Your task to perform on an android device: turn smart compose on in the gmail app Image 0: 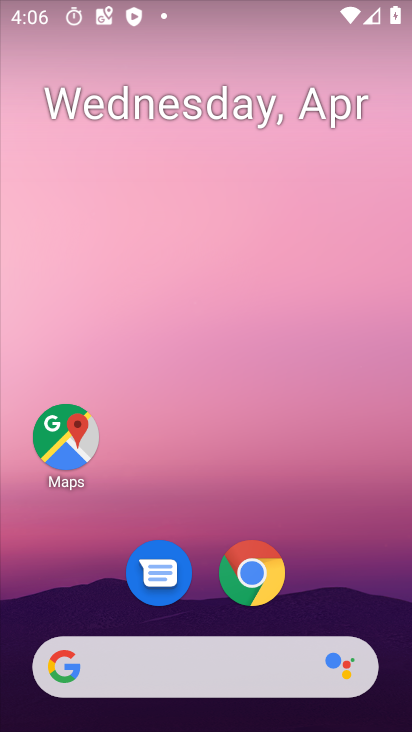
Step 0: drag from (363, 433) to (369, 75)
Your task to perform on an android device: turn smart compose on in the gmail app Image 1: 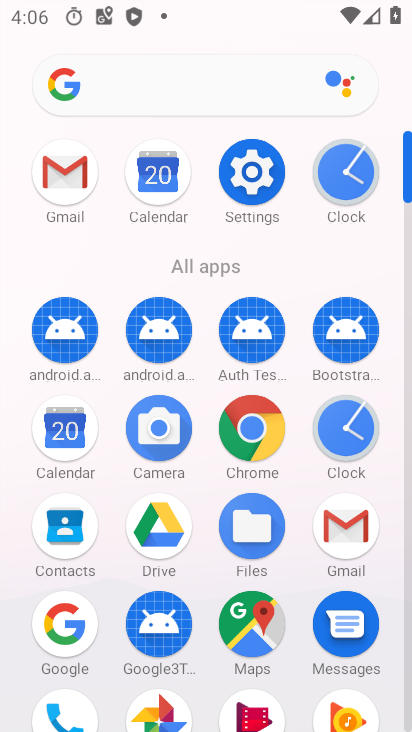
Step 1: click (358, 534)
Your task to perform on an android device: turn smart compose on in the gmail app Image 2: 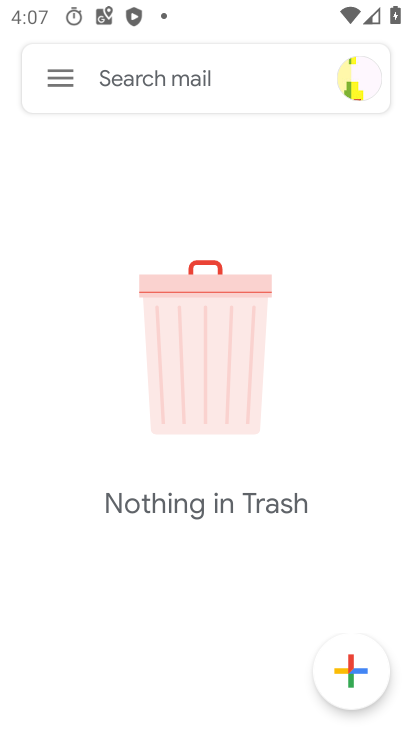
Step 2: click (50, 85)
Your task to perform on an android device: turn smart compose on in the gmail app Image 3: 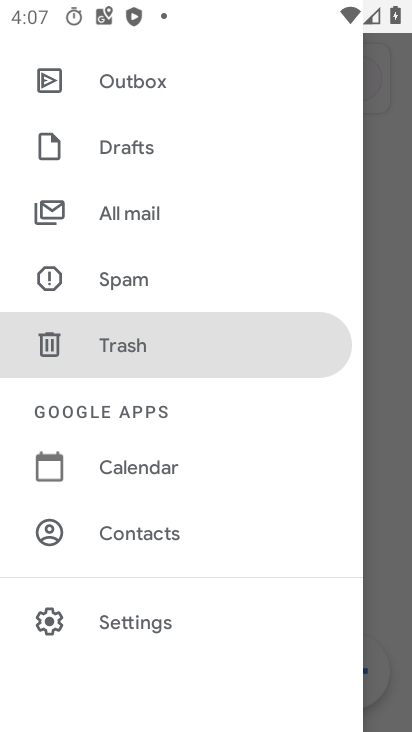
Step 3: drag from (270, 649) to (319, 184)
Your task to perform on an android device: turn smart compose on in the gmail app Image 4: 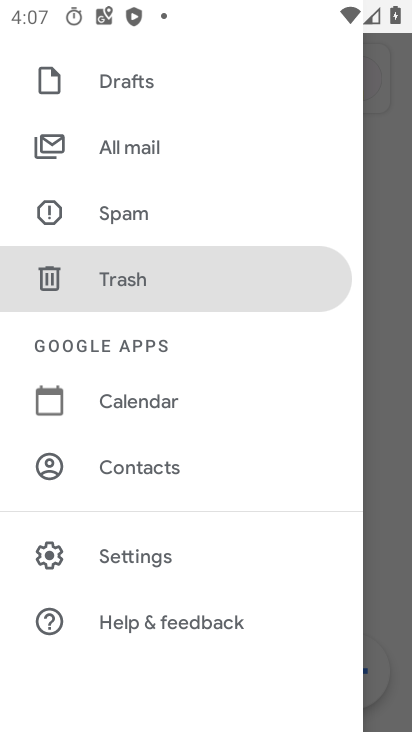
Step 4: click (139, 558)
Your task to perform on an android device: turn smart compose on in the gmail app Image 5: 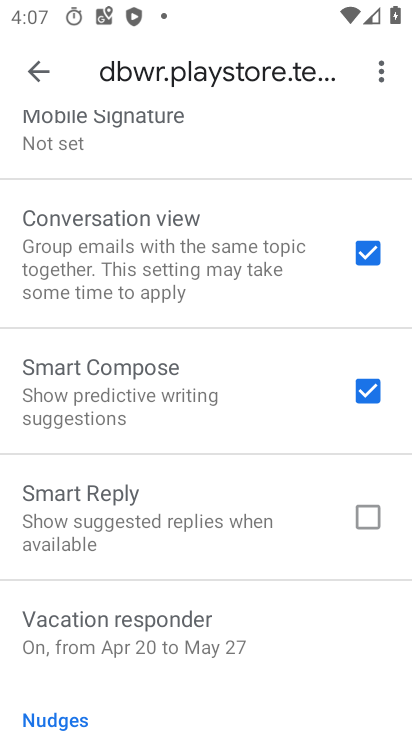
Step 5: task complete